Your task to perform on an android device: clear all cookies in the chrome app Image 0: 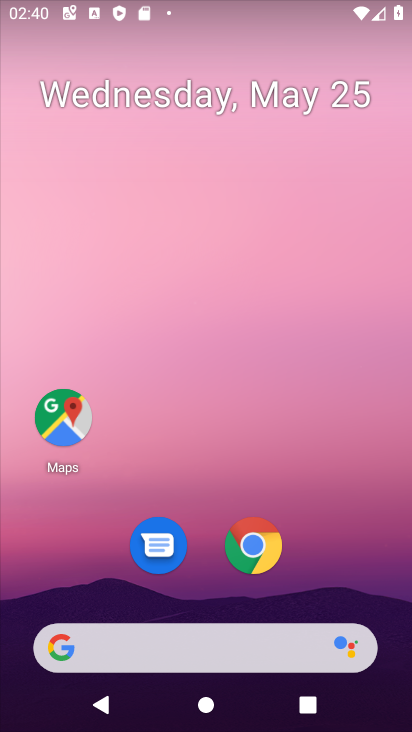
Step 0: click (271, 556)
Your task to perform on an android device: clear all cookies in the chrome app Image 1: 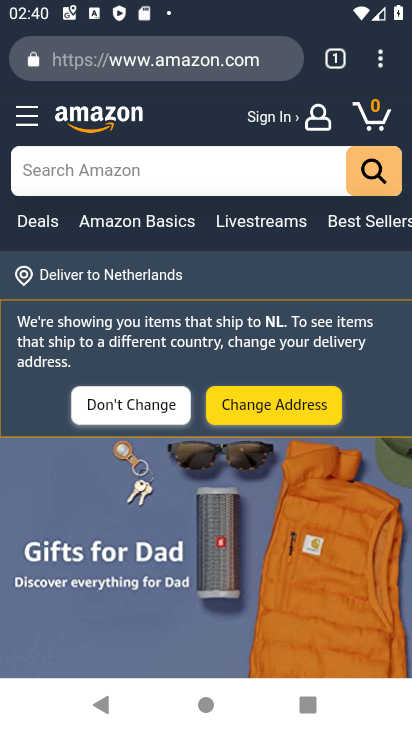
Step 1: click (383, 71)
Your task to perform on an android device: clear all cookies in the chrome app Image 2: 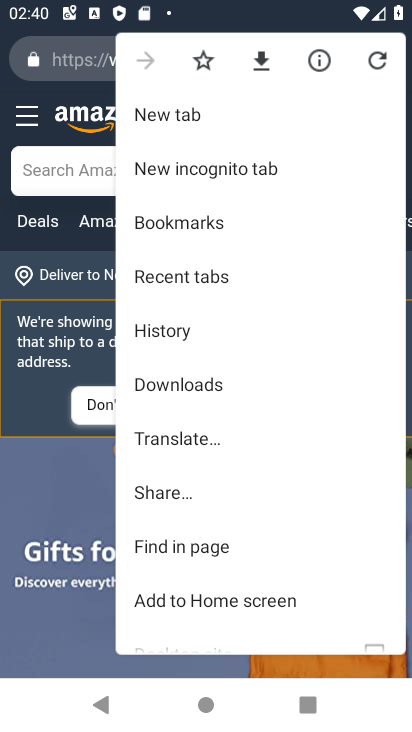
Step 2: drag from (300, 616) to (288, 256)
Your task to perform on an android device: clear all cookies in the chrome app Image 3: 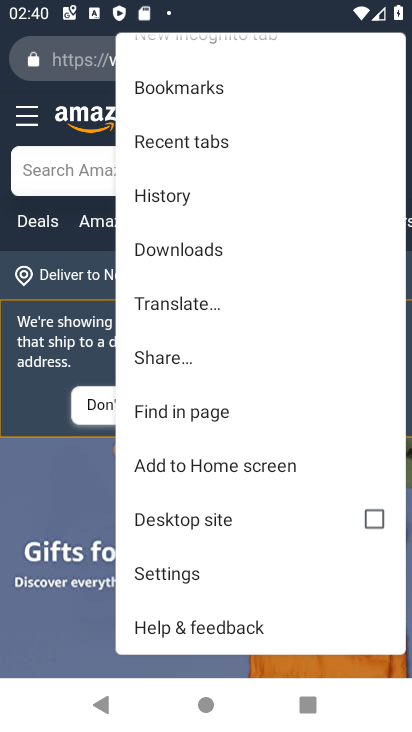
Step 3: click (258, 577)
Your task to perform on an android device: clear all cookies in the chrome app Image 4: 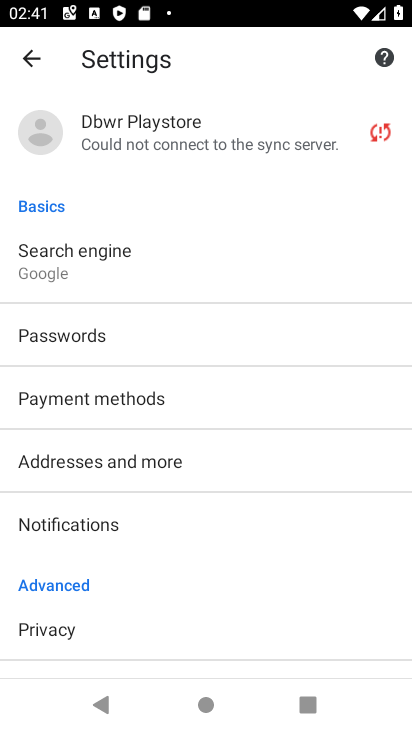
Step 4: drag from (214, 527) to (198, 153)
Your task to perform on an android device: clear all cookies in the chrome app Image 5: 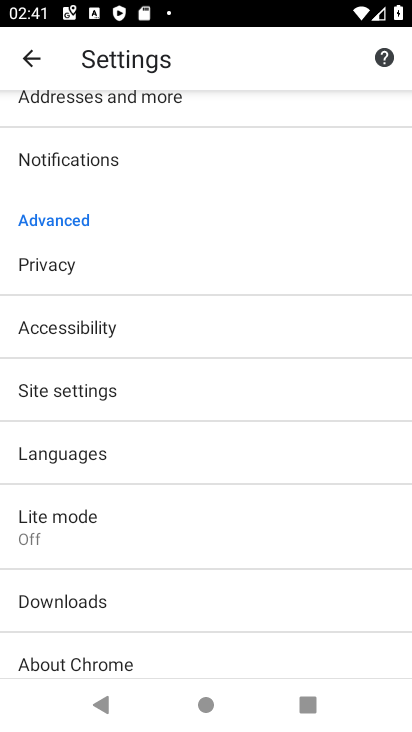
Step 5: click (151, 406)
Your task to perform on an android device: clear all cookies in the chrome app Image 6: 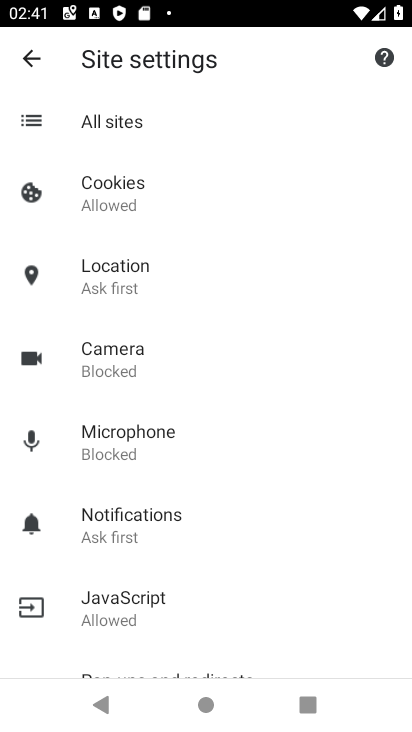
Step 6: task complete